Your task to perform on an android device: search for starred emails in the gmail app Image 0: 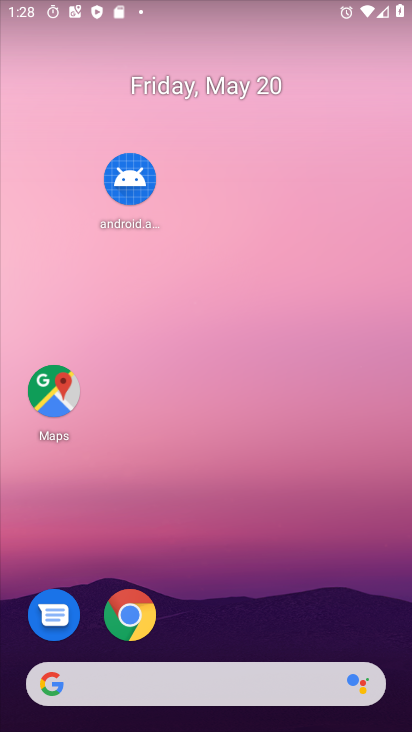
Step 0: drag from (346, 551) to (300, 101)
Your task to perform on an android device: search for starred emails in the gmail app Image 1: 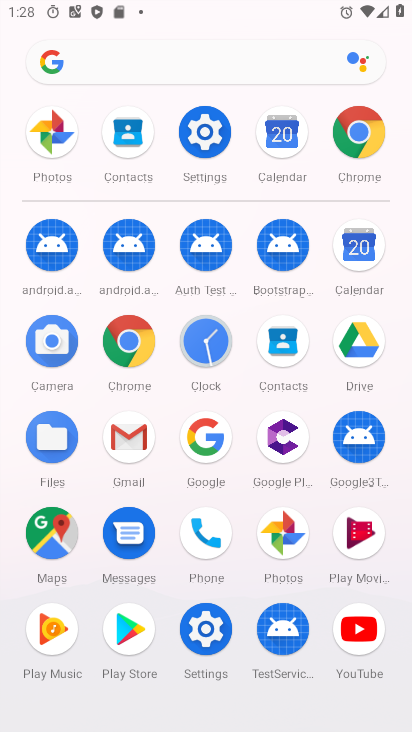
Step 1: click (142, 428)
Your task to perform on an android device: search for starred emails in the gmail app Image 2: 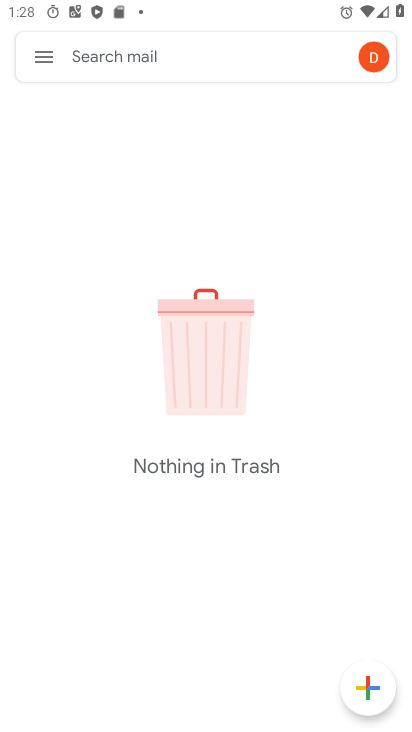
Step 2: click (40, 63)
Your task to perform on an android device: search for starred emails in the gmail app Image 3: 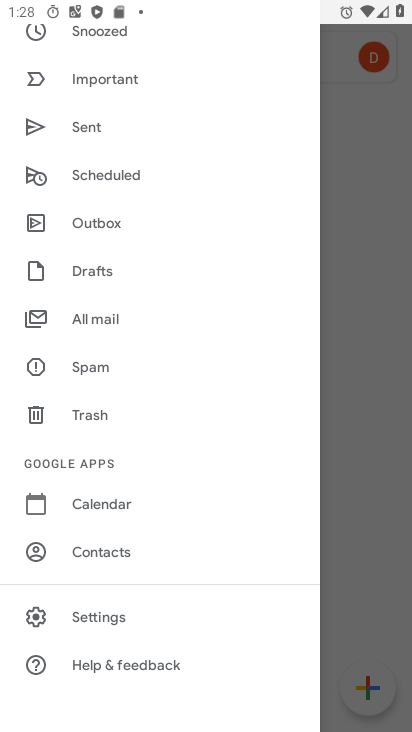
Step 3: drag from (141, 129) to (155, 399)
Your task to perform on an android device: search for starred emails in the gmail app Image 4: 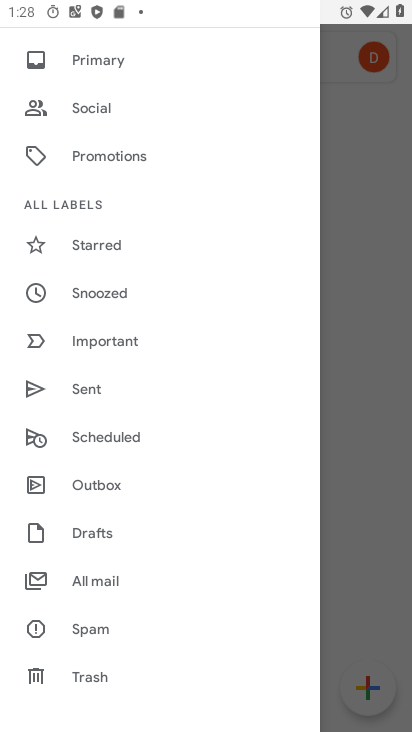
Step 4: click (177, 231)
Your task to perform on an android device: search for starred emails in the gmail app Image 5: 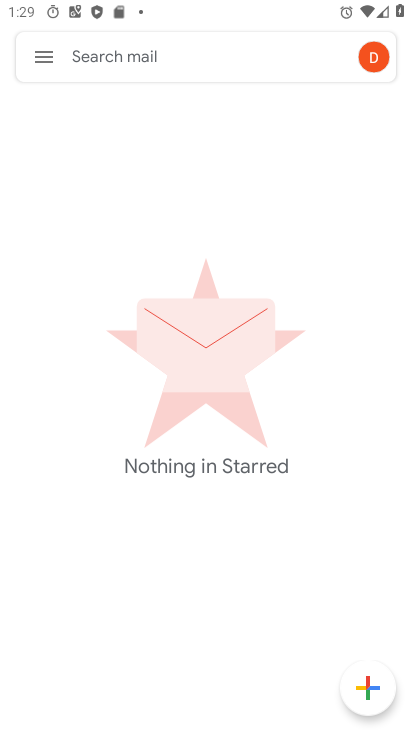
Step 5: task complete